Your task to perform on an android device: uninstall "Paramount+ | Peak Streaming" Image 0: 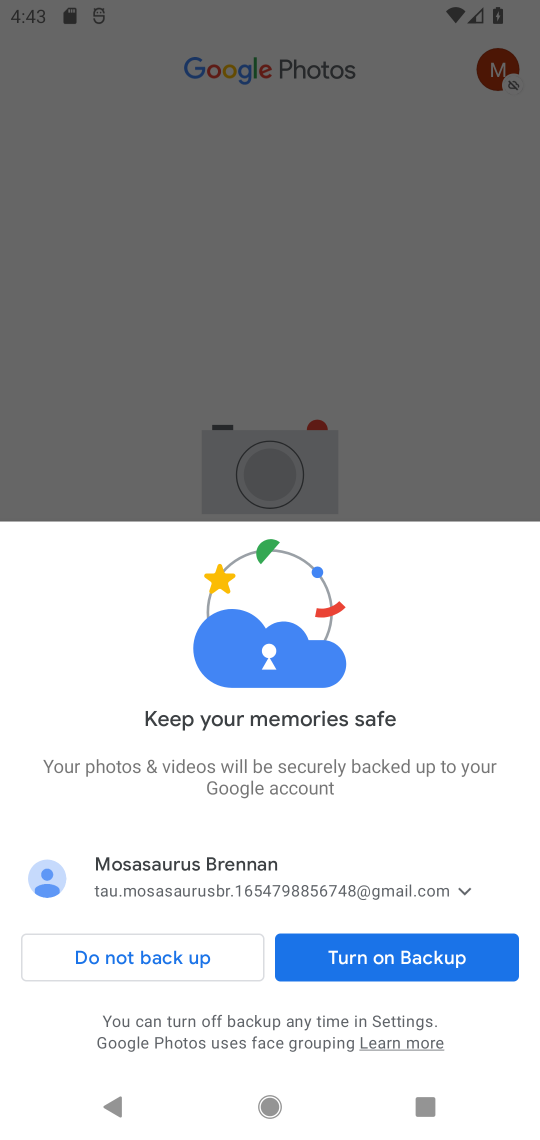
Step 0: press home button
Your task to perform on an android device: uninstall "Paramount+ | Peak Streaming" Image 1: 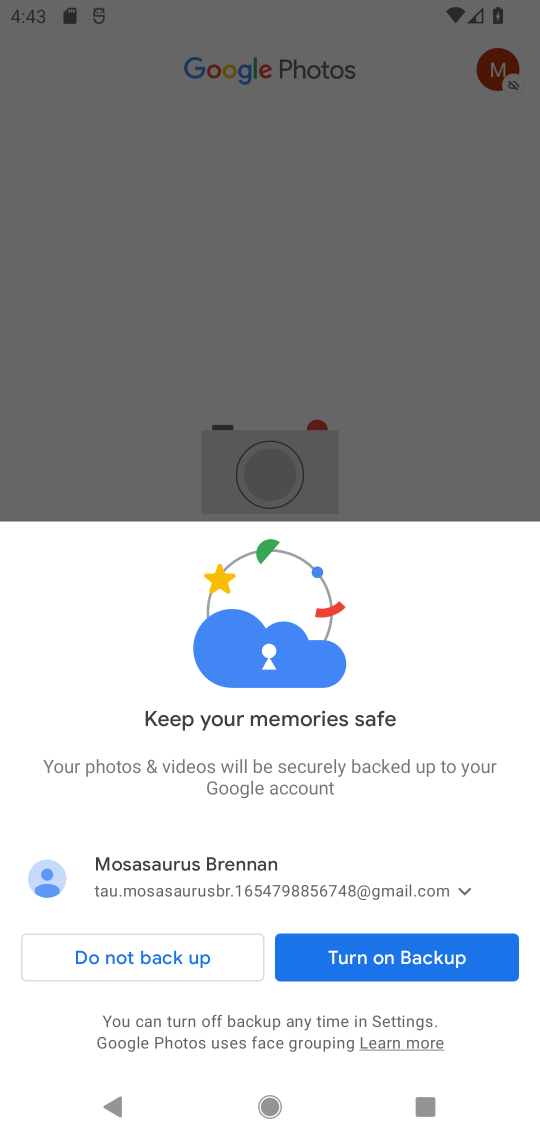
Step 1: press home button
Your task to perform on an android device: uninstall "Paramount+ | Peak Streaming" Image 2: 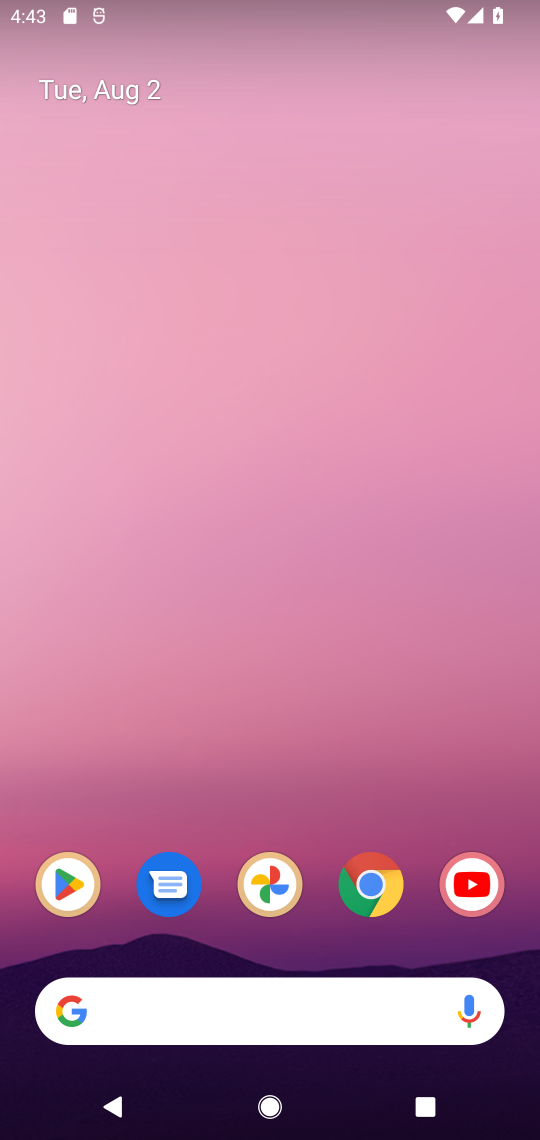
Step 2: click (56, 877)
Your task to perform on an android device: uninstall "Paramount+ | Peak Streaming" Image 3: 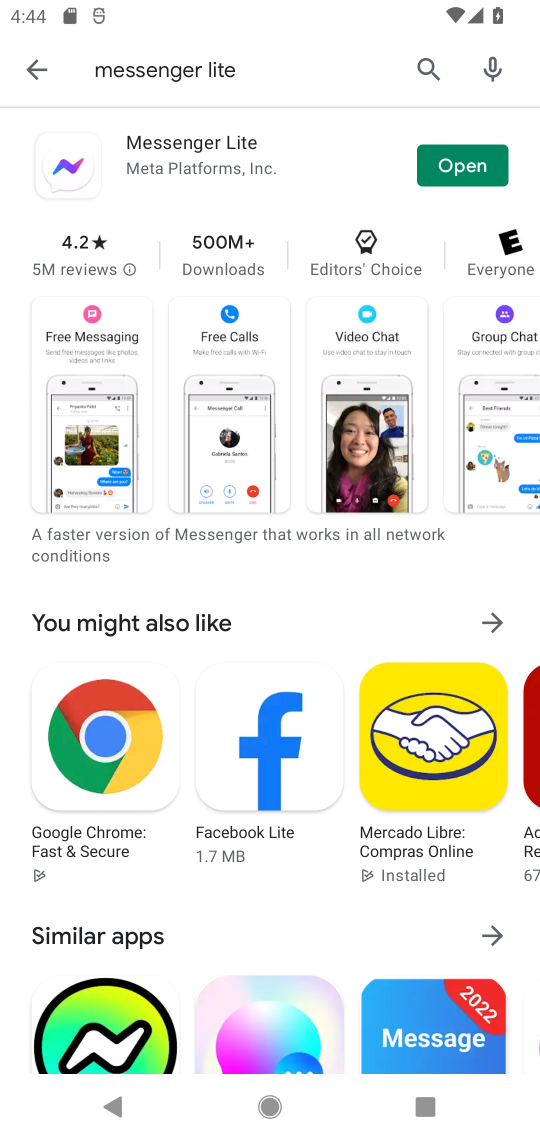
Step 3: click (433, 61)
Your task to perform on an android device: uninstall "Paramount+ | Peak Streaming" Image 4: 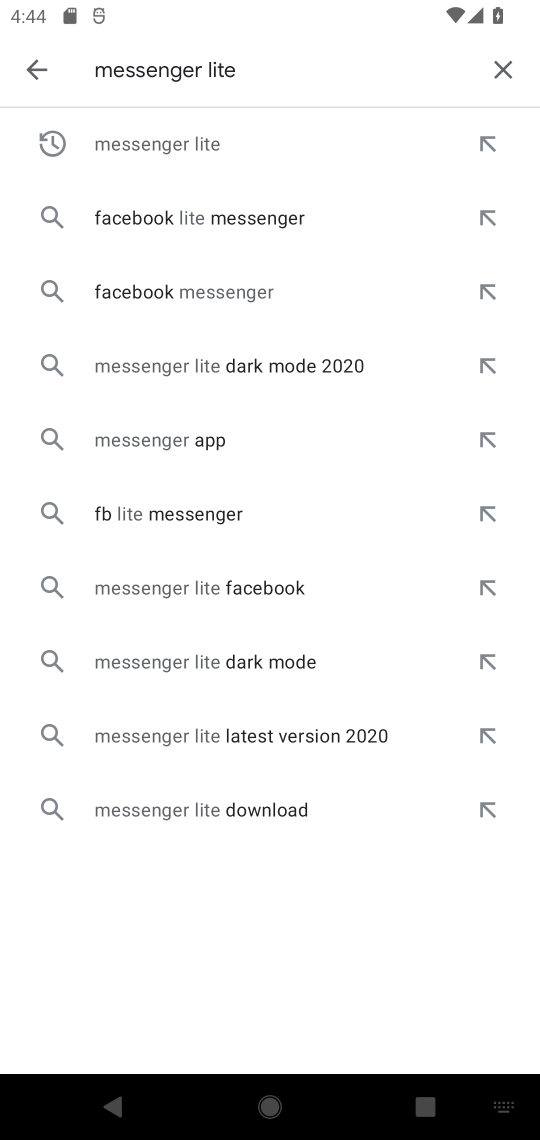
Step 4: click (508, 61)
Your task to perform on an android device: uninstall "Paramount+ | Peak Streaming" Image 5: 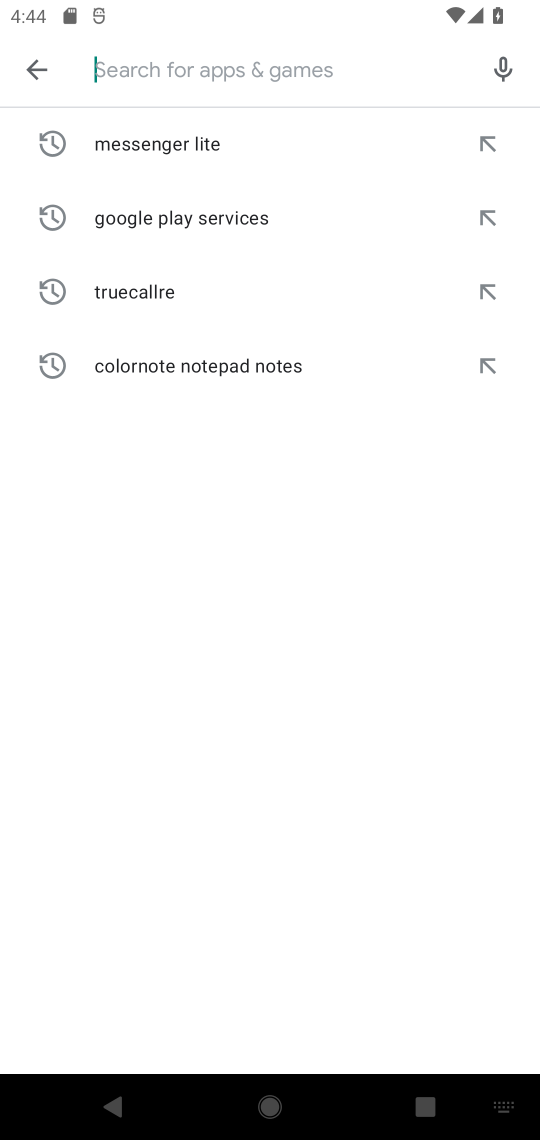
Step 5: type "Paramount+ | Peak Streaming"
Your task to perform on an android device: uninstall "Paramount+ | Peak Streaming" Image 6: 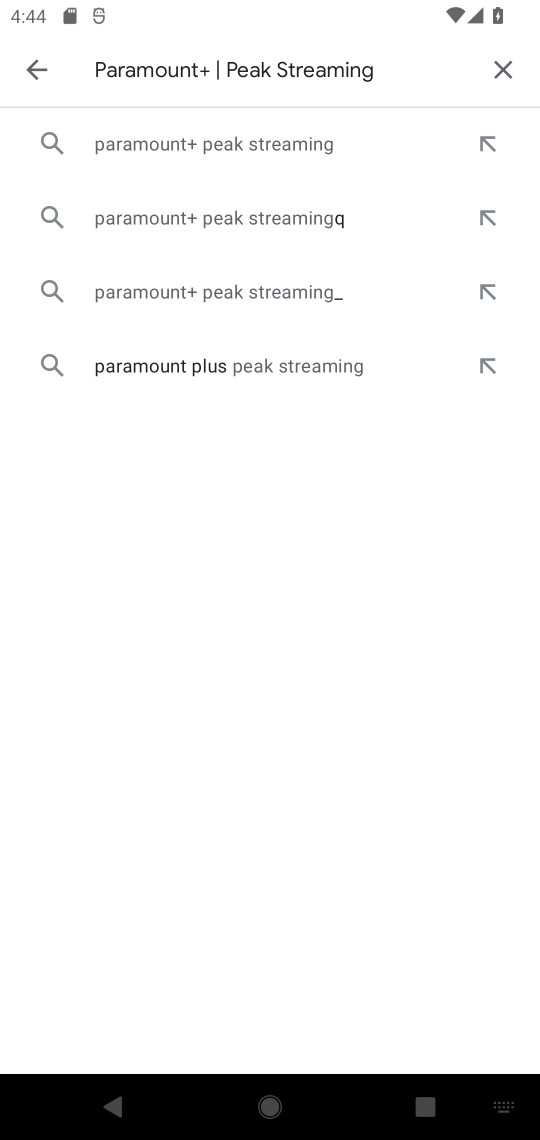
Step 6: click (343, 145)
Your task to perform on an android device: uninstall "Paramount+ | Peak Streaming" Image 7: 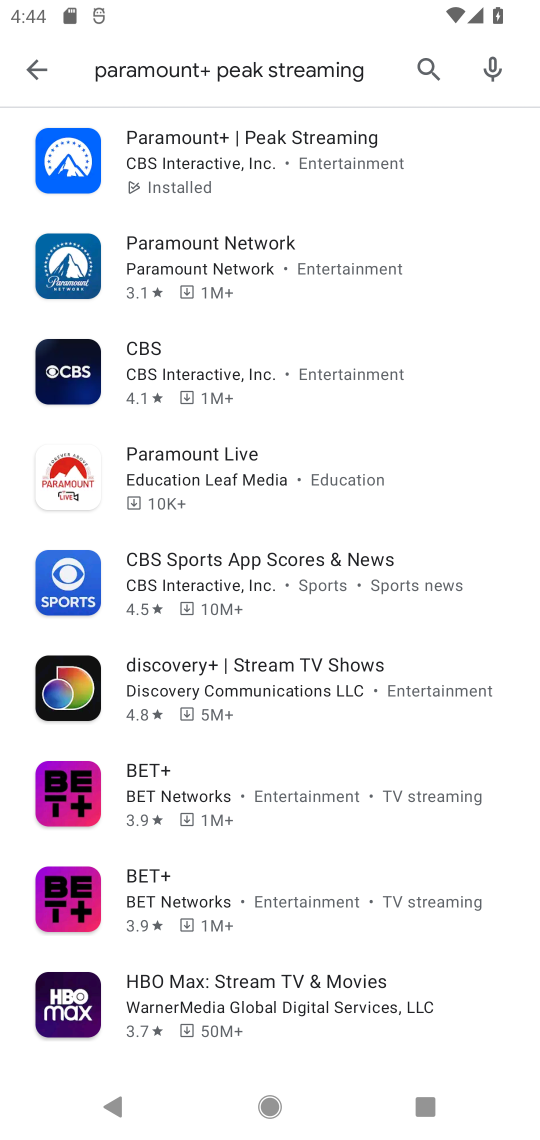
Step 7: click (398, 154)
Your task to perform on an android device: uninstall "Paramount+ | Peak Streaming" Image 8: 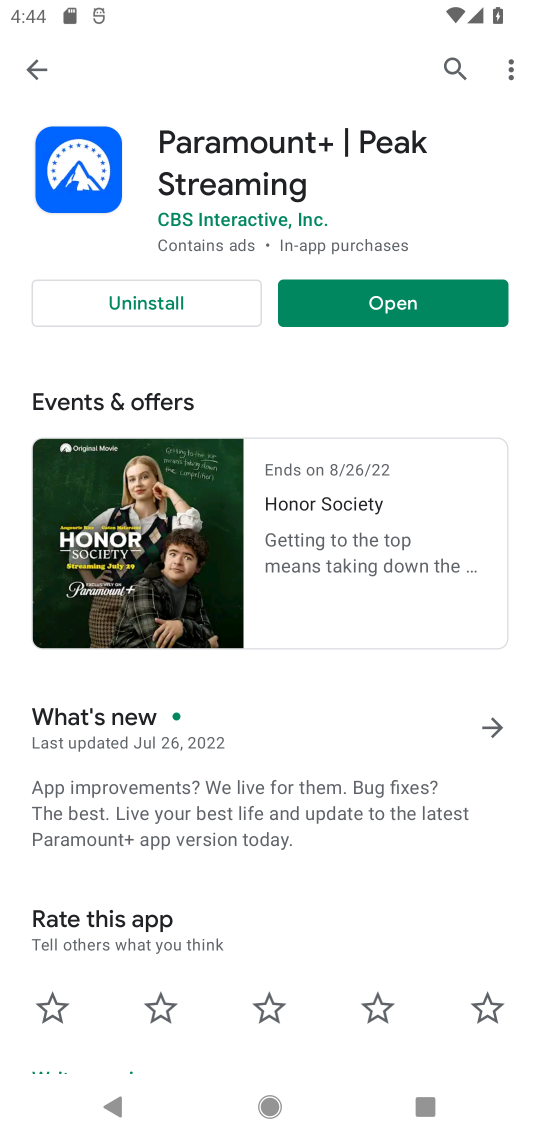
Step 8: click (179, 314)
Your task to perform on an android device: uninstall "Paramount+ | Peak Streaming" Image 9: 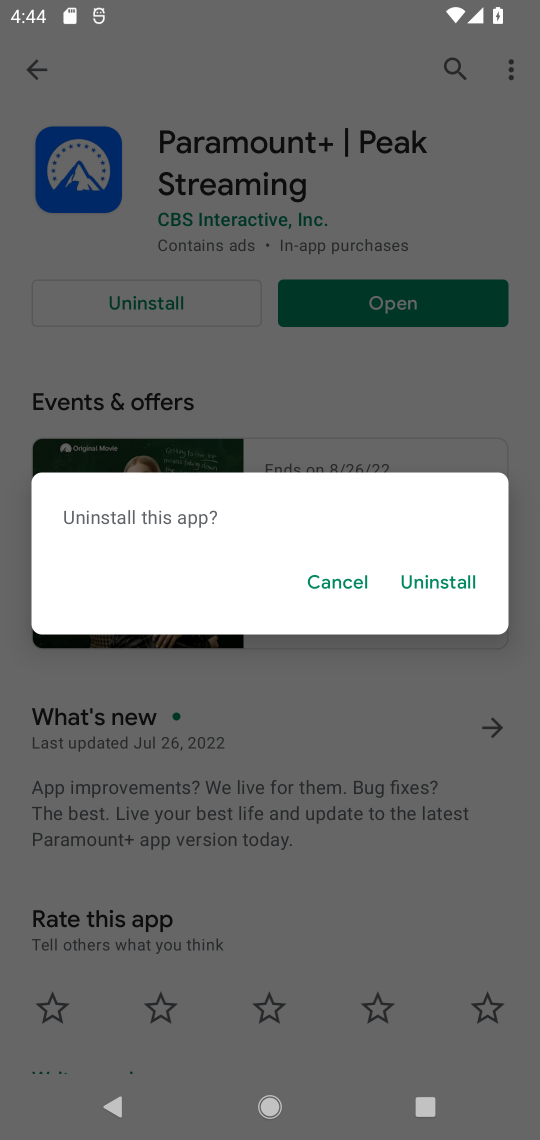
Step 9: click (437, 573)
Your task to perform on an android device: uninstall "Paramount+ | Peak Streaming" Image 10: 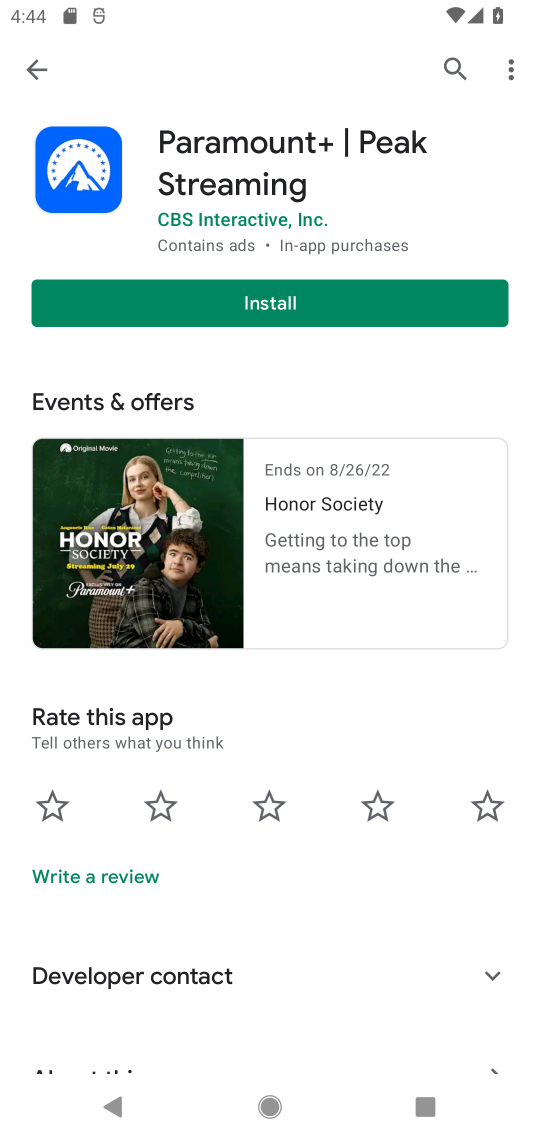
Step 10: task complete